Your task to perform on an android device: Open Google Chrome and open the bookmarks view Image 0: 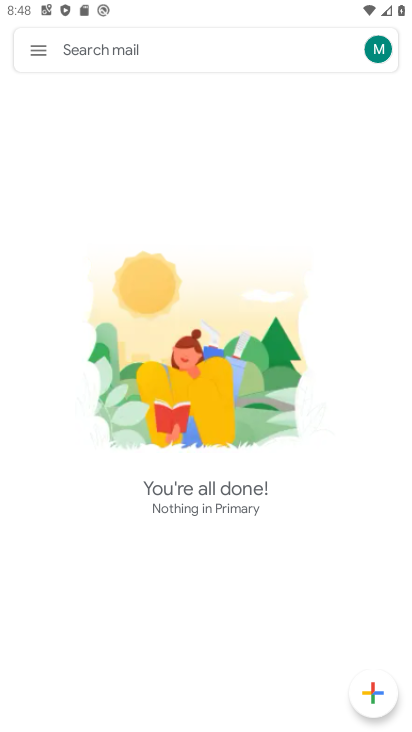
Step 0: press home button
Your task to perform on an android device: Open Google Chrome and open the bookmarks view Image 1: 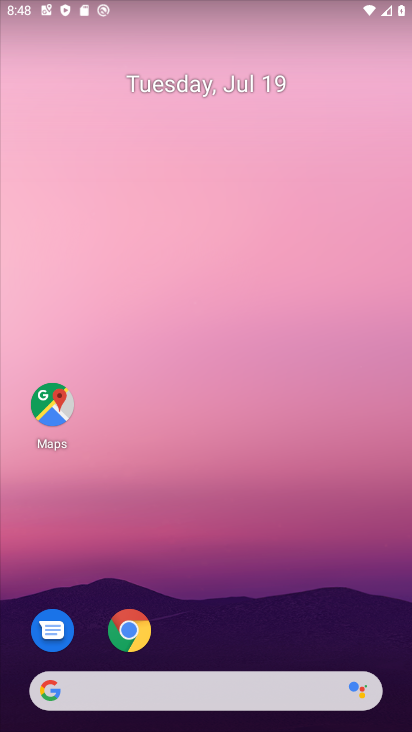
Step 1: click (129, 630)
Your task to perform on an android device: Open Google Chrome and open the bookmarks view Image 2: 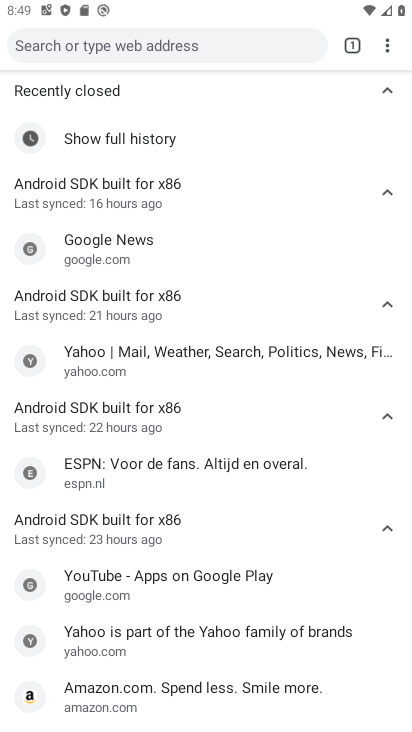
Step 2: click (386, 51)
Your task to perform on an android device: Open Google Chrome and open the bookmarks view Image 3: 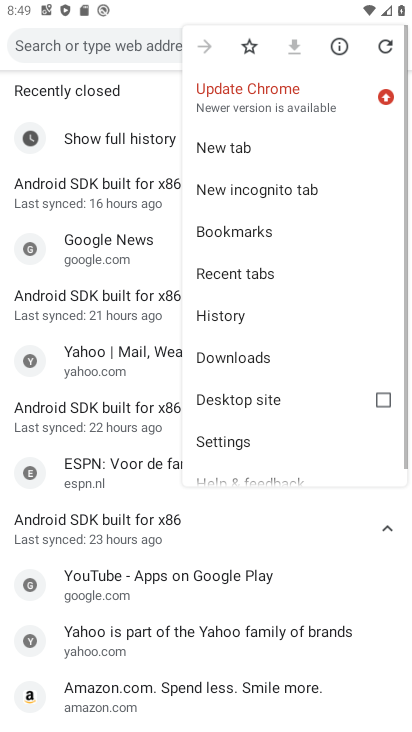
Step 3: click (260, 231)
Your task to perform on an android device: Open Google Chrome and open the bookmarks view Image 4: 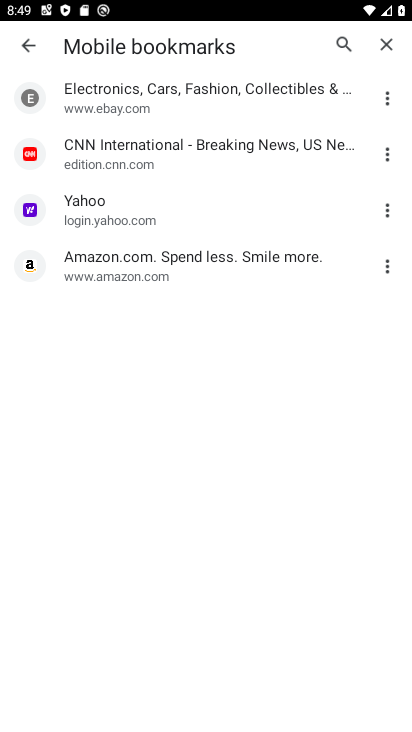
Step 4: click (89, 209)
Your task to perform on an android device: Open Google Chrome and open the bookmarks view Image 5: 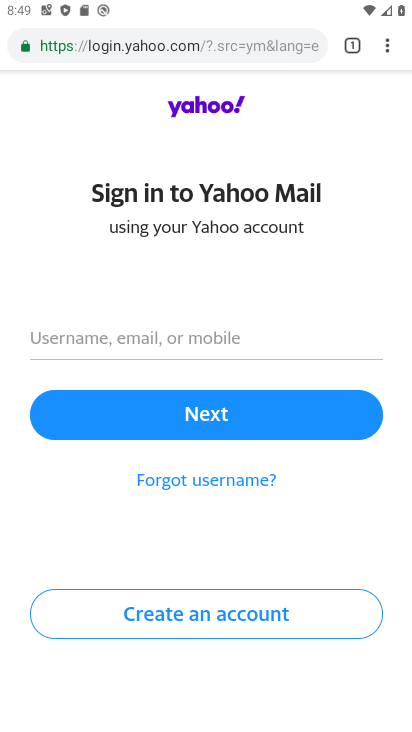
Step 5: task complete